Your task to perform on an android device: Open Google Image 0: 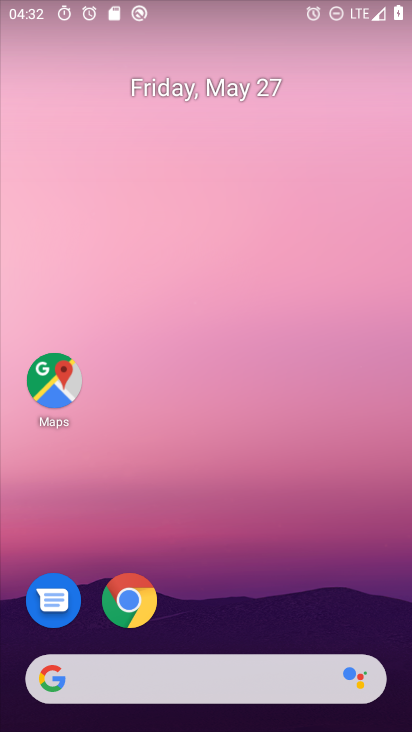
Step 0: click (236, 157)
Your task to perform on an android device: Open Google Image 1: 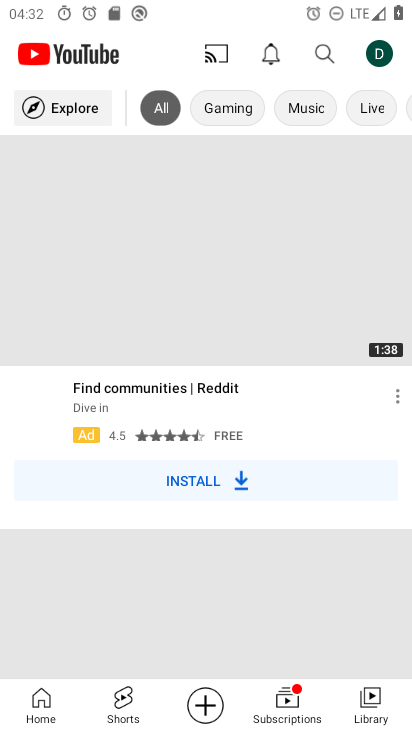
Step 1: press home button
Your task to perform on an android device: Open Google Image 2: 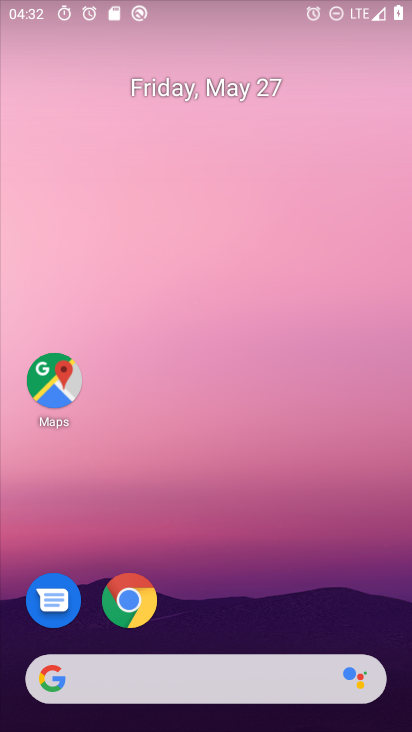
Step 2: drag from (220, 726) to (220, 188)
Your task to perform on an android device: Open Google Image 3: 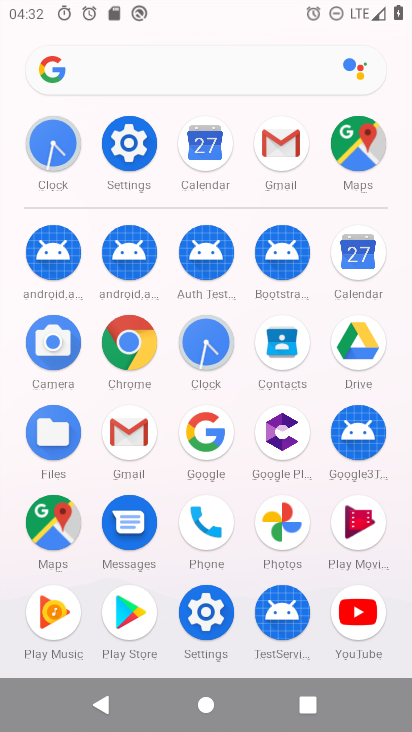
Step 3: click (200, 439)
Your task to perform on an android device: Open Google Image 4: 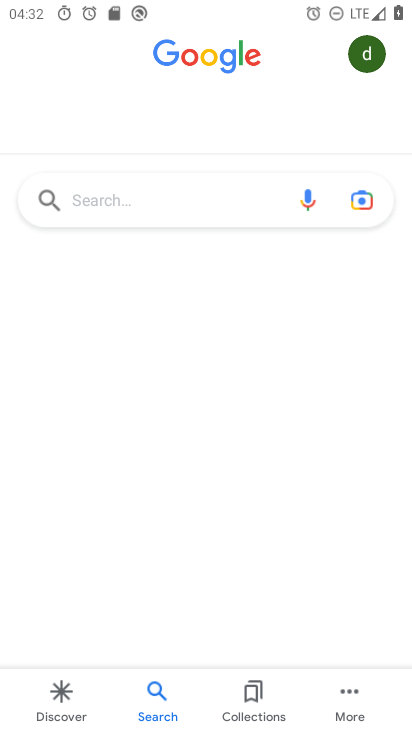
Step 4: task complete